Your task to perform on an android device: change the upload size in google photos Image 0: 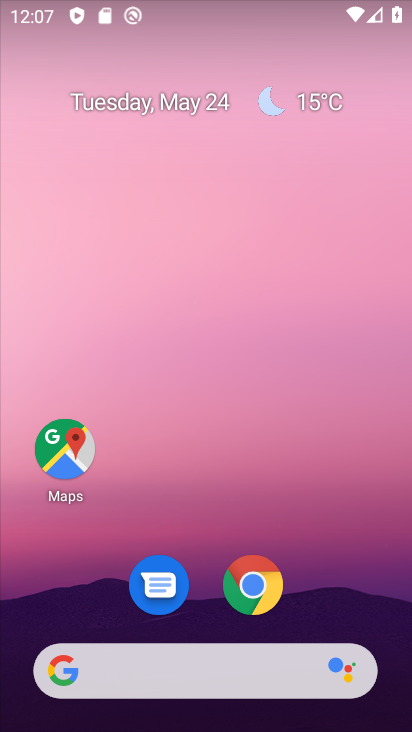
Step 0: drag from (309, 525) to (302, 59)
Your task to perform on an android device: change the upload size in google photos Image 1: 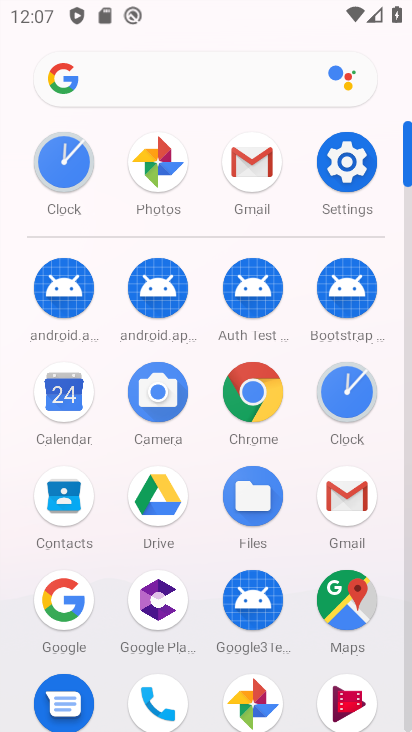
Step 1: click (155, 171)
Your task to perform on an android device: change the upload size in google photos Image 2: 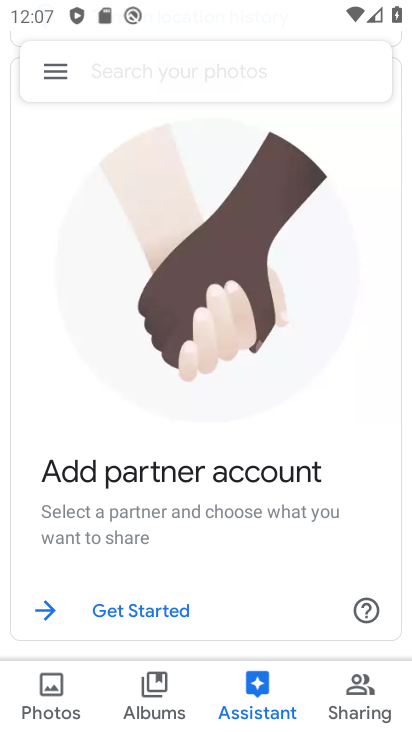
Step 2: click (47, 74)
Your task to perform on an android device: change the upload size in google photos Image 3: 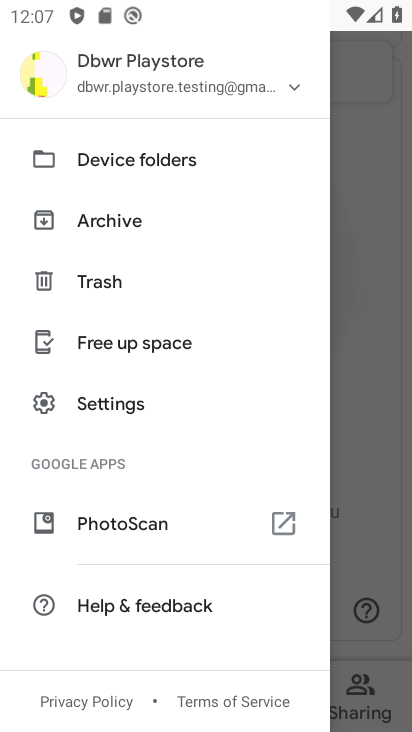
Step 3: click (118, 391)
Your task to perform on an android device: change the upload size in google photos Image 4: 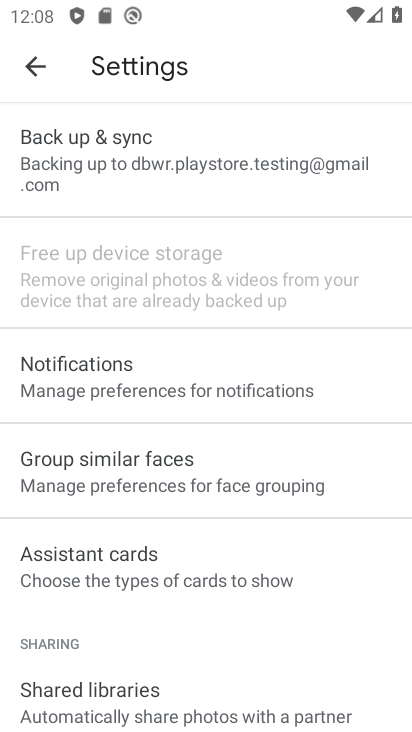
Step 4: click (212, 157)
Your task to perform on an android device: change the upload size in google photos Image 5: 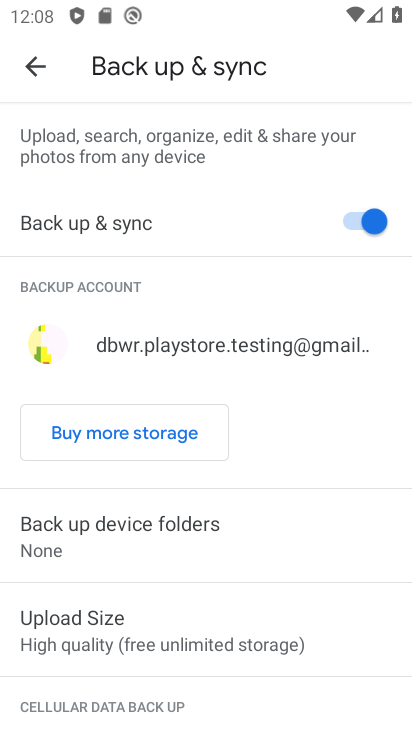
Step 5: click (158, 633)
Your task to perform on an android device: change the upload size in google photos Image 6: 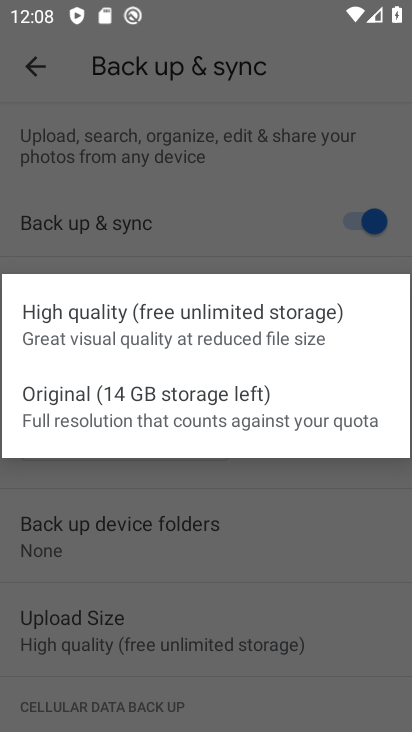
Step 6: click (215, 411)
Your task to perform on an android device: change the upload size in google photos Image 7: 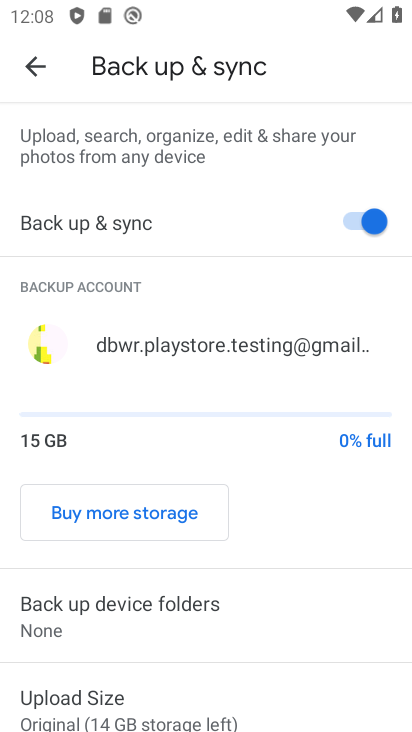
Step 7: task complete